Your task to perform on an android device: Search for pizza restaurants on Maps Image 0: 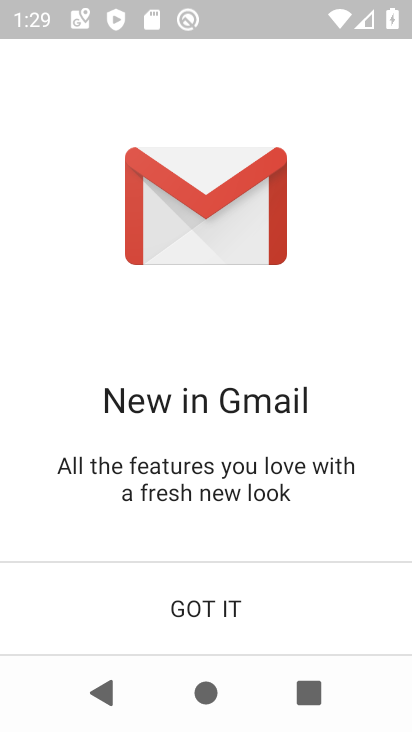
Step 0: press home button
Your task to perform on an android device: Search for pizza restaurants on Maps Image 1: 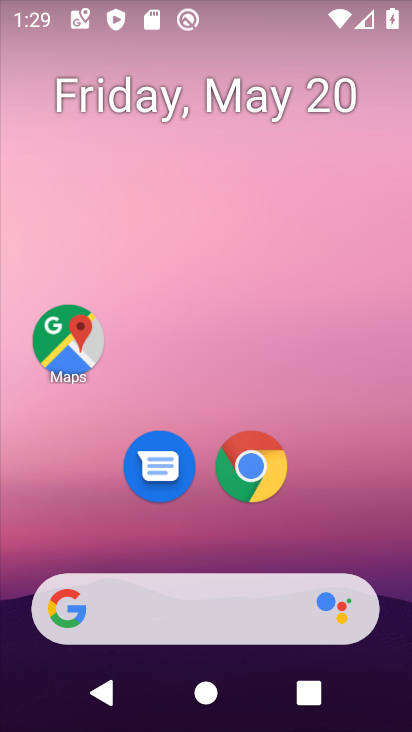
Step 1: drag from (188, 544) to (187, 60)
Your task to perform on an android device: Search for pizza restaurants on Maps Image 2: 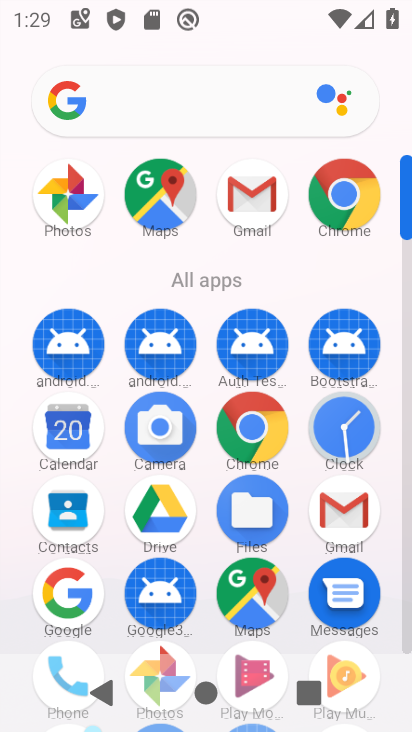
Step 2: click (270, 606)
Your task to perform on an android device: Search for pizza restaurants on Maps Image 3: 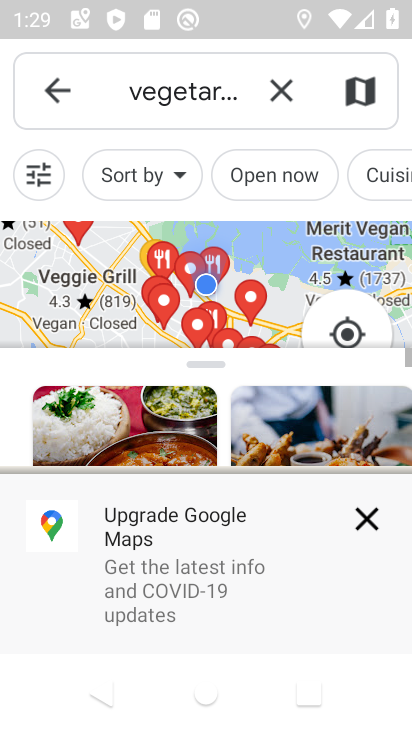
Step 3: click (268, 93)
Your task to perform on an android device: Search for pizza restaurants on Maps Image 4: 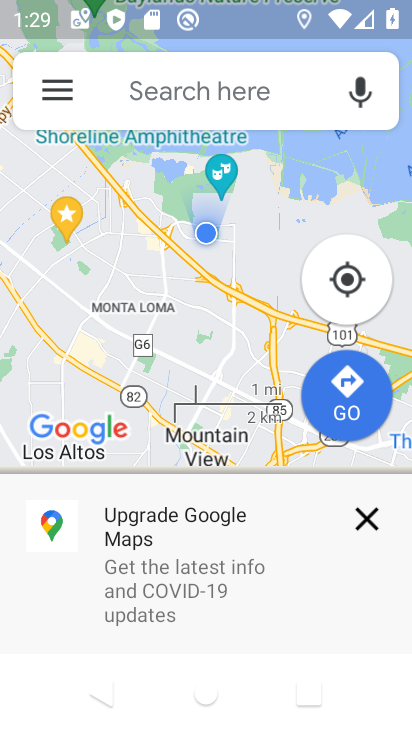
Step 4: click (233, 91)
Your task to perform on an android device: Search for pizza restaurants on Maps Image 5: 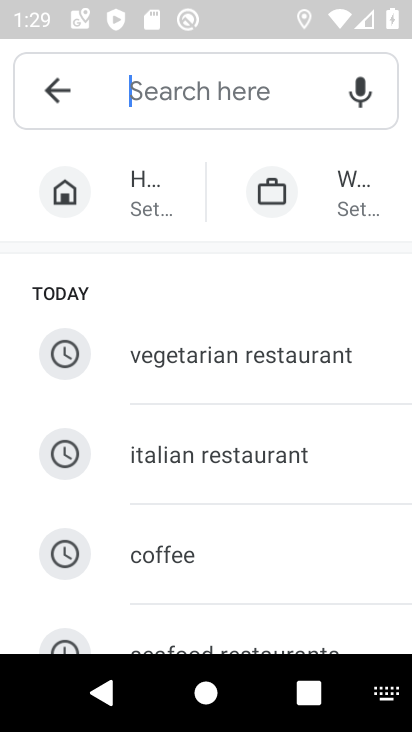
Step 5: drag from (216, 390) to (170, 120)
Your task to perform on an android device: Search for pizza restaurants on Maps Image 6: 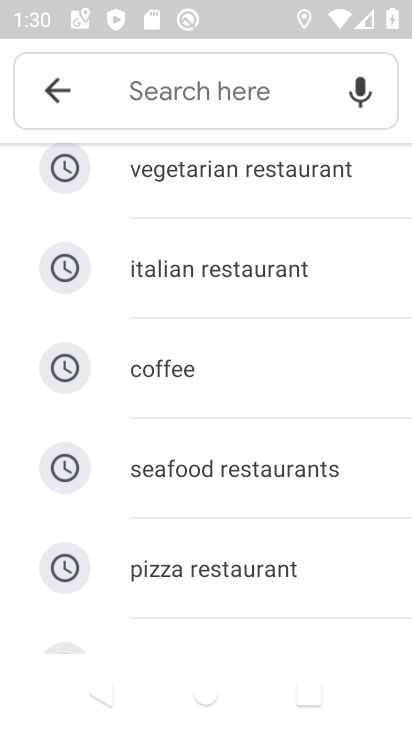
Step 6: click (201, 539)
Your task to perform on an android device: Search for pizza restaurants on Maps Image 7: 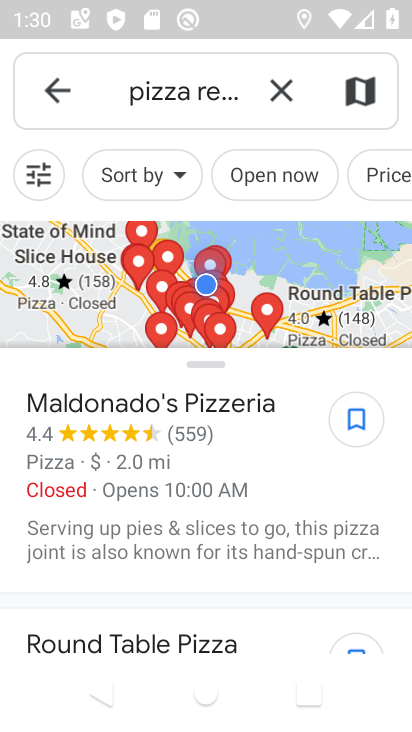
Step 7: task complete